Your task to perform on an android device: See recent photos Image 0: 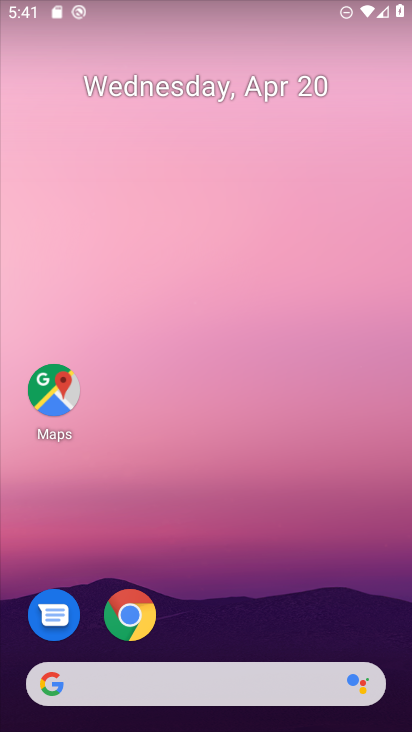
Step 0: drag from (258, 478) to (252, 70)
Your task to perform on an android device: See recent photos Image 1: 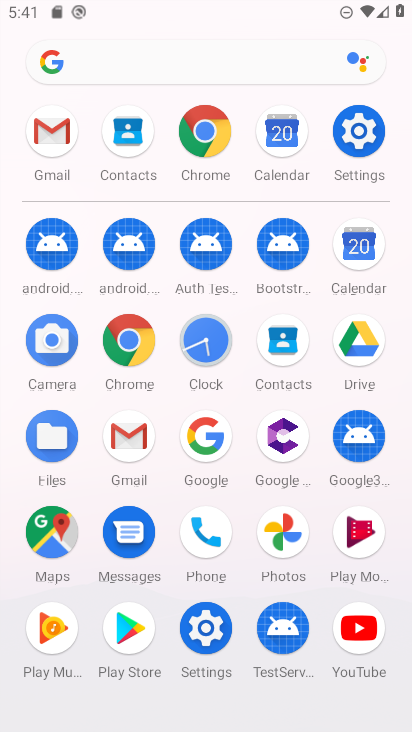
Step 1: click (363, 353)
Your task to perform on an android device: See recent photos Image 2: 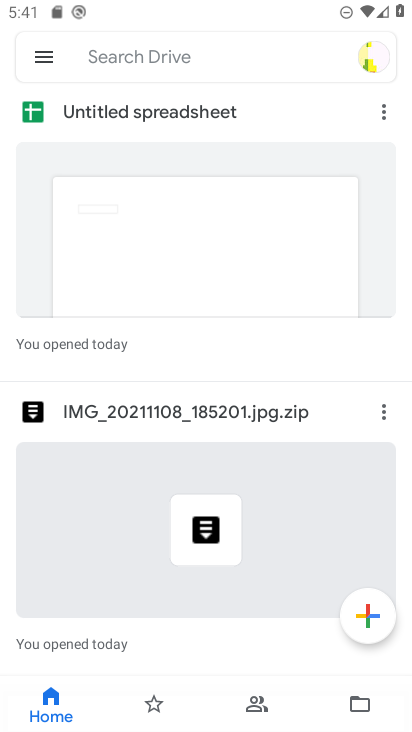
Step 2: click (49, 50)
Your task to perform on an android device: See recent photos Image 3: 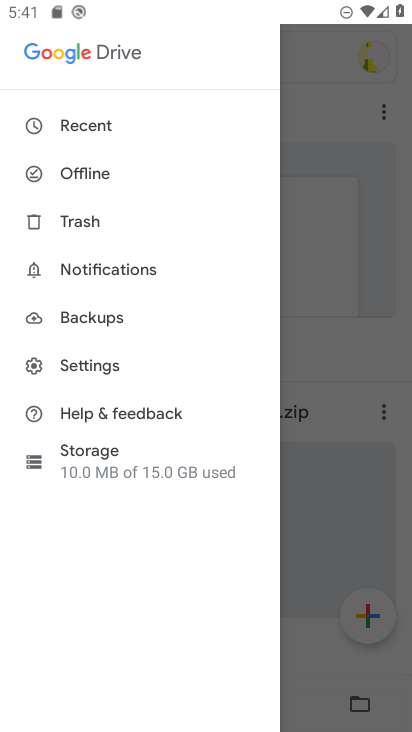
Step 3: click (69, 121)
Your task to perform on an android device: See recent photos Image 4: 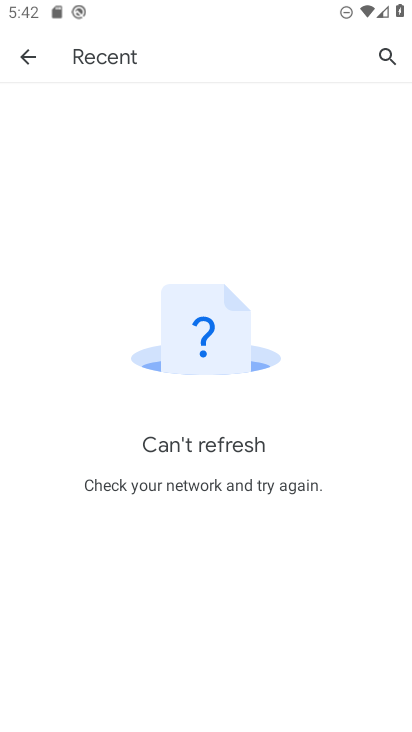
Step 4: drag from (188, 228) to (186, 596)
Your task to perform on an android device: See recent photos Image 5: 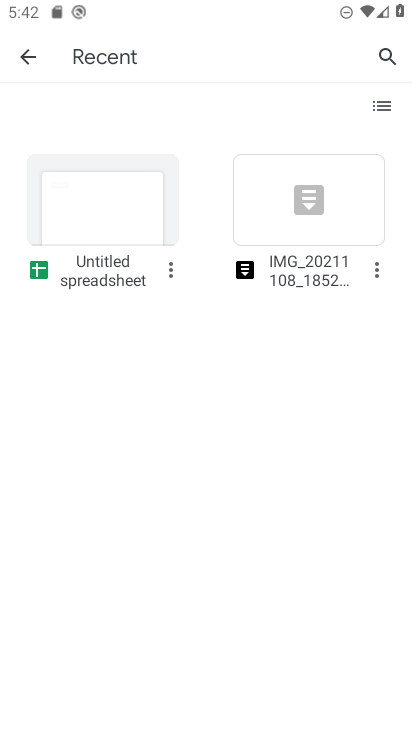
Step 5: click (337, 204)
Your task to perform on an android device: See recent photos Image 6: 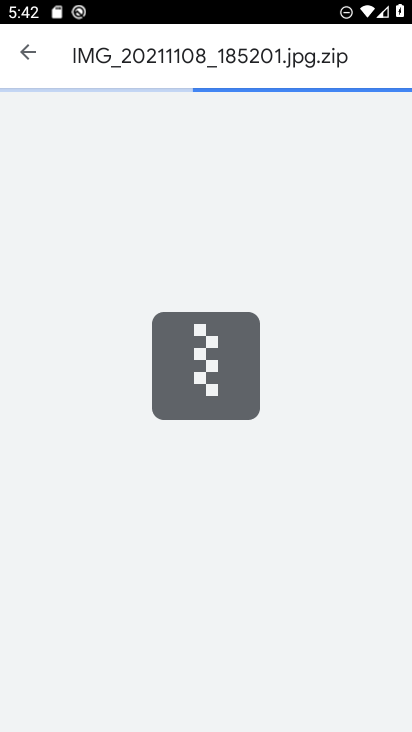
Step 6: task complete